Your task to perform on an android device: make emails show in primary in the gmail app Image 0: 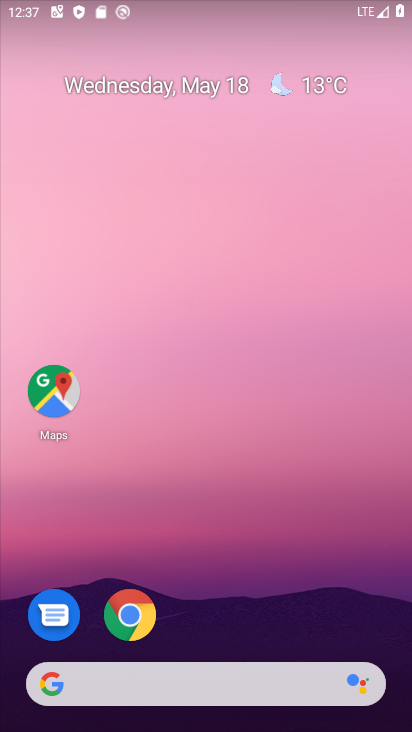
Step 0: press home button
Your task to perform on an android device: make emails show in primary in the gmail app Image 1: 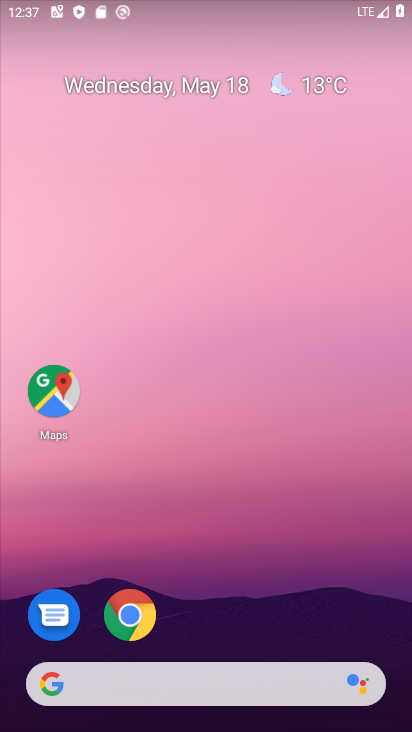
Step 1: drag from (171, 690) to (265, 229)
Your task to perform on an android device: make emails show in primary in the gmail app Image 2: 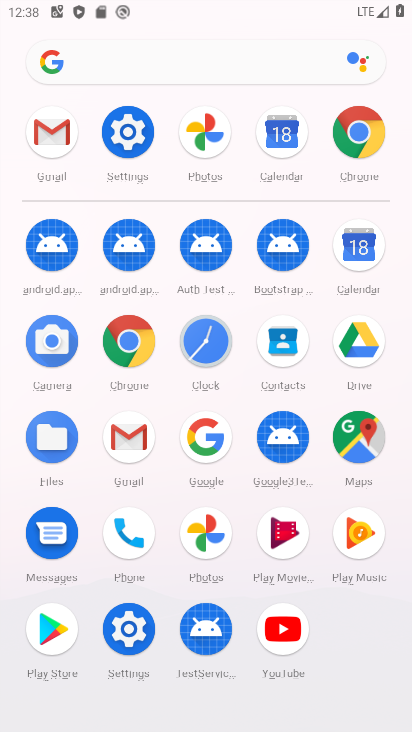
Step 2: click (48, 142)
Your task to perform on an android device: make emails show in primary in the gmail app Image 3: 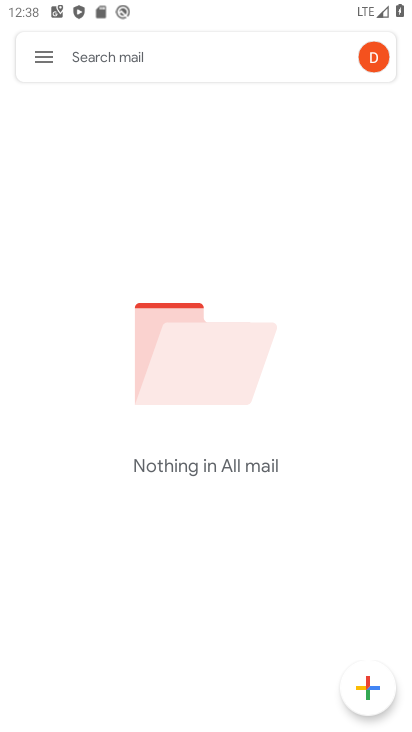
Step 3: click (44, 57)
Your task to perform on an android device: make emails show in primary in the gmail app Image 4: 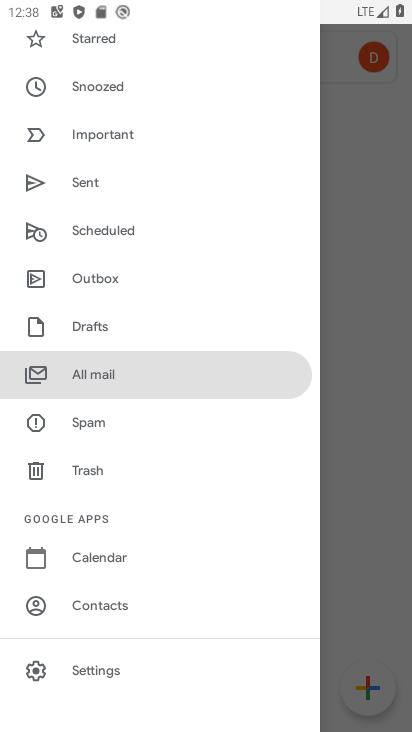
Step 4: click (116, 668)
Your task to perform on an android device: make emails show in primary in the gmail app Image 5: 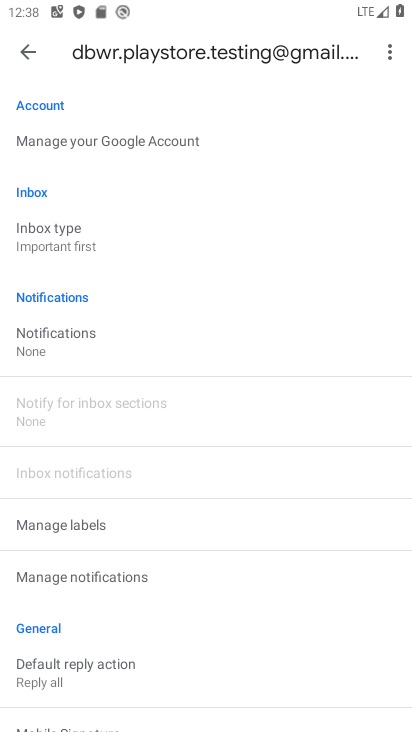
Step 5: task complete